Your task to perform on an android device: turn on bluetooth scan Image 0: 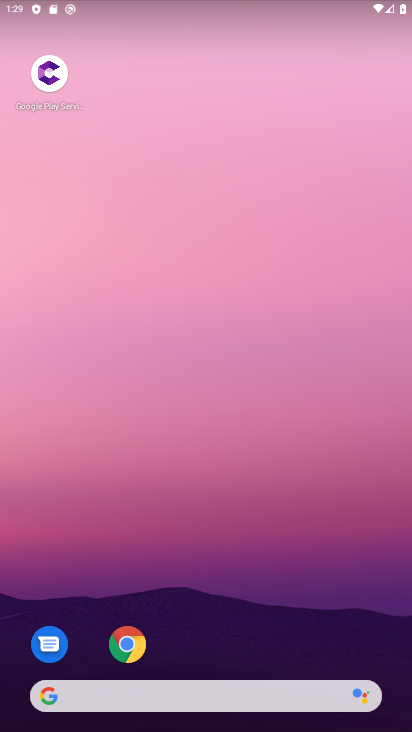
Step 0: drag from (237, 643) to (268, 253)
Your task to perform on an android device: turn on bluetooth scan Image 1: 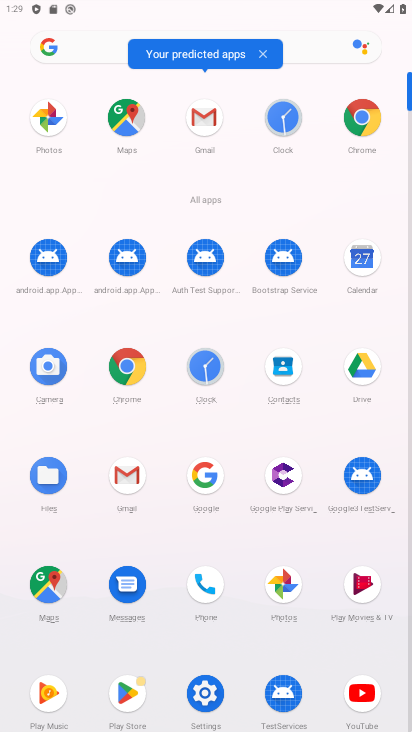
Step 1: drag from (208, 686) to (55, 261)
Your task to perform on an android device: turn on bluetooth scan Image 2: 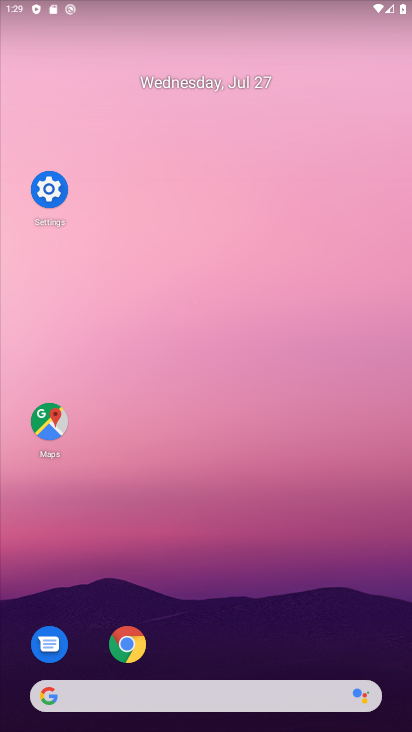
Step 2: click (44, 190)
Your task to perform on an android device: turn on bluetooth scan Image 3: 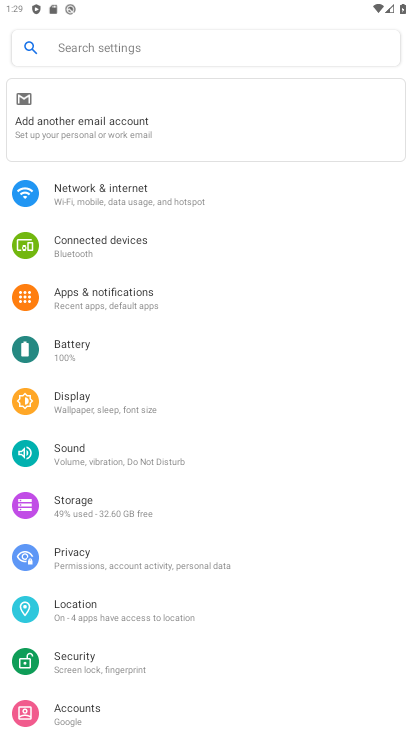
Step 3: click (152, 605)
Your task to perform on an android device: turn on bluetooth scan Image 4: 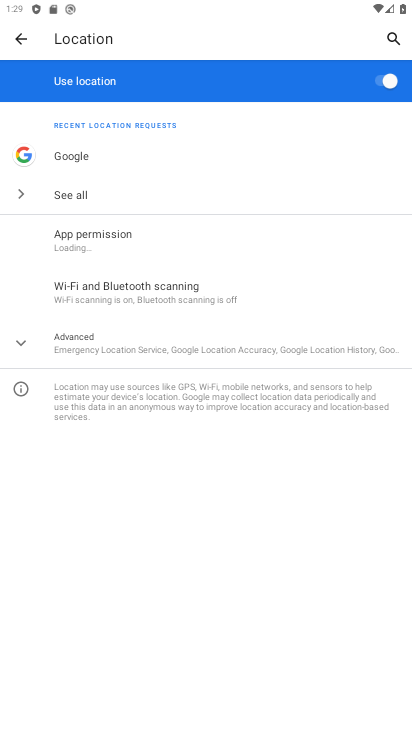
Step 4: click (249, 299)
Your task to perform on an android device: turn on bluetooth scan Image 5: 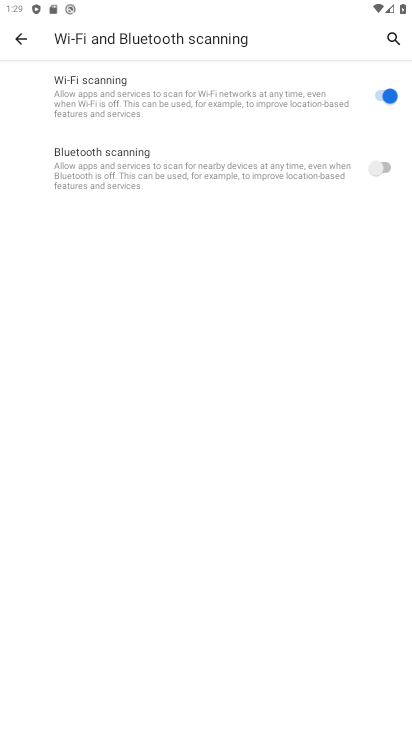
Step 5: click (374, 165)
Your task to perform on an android device: turn on bluetooth scan Image 6: 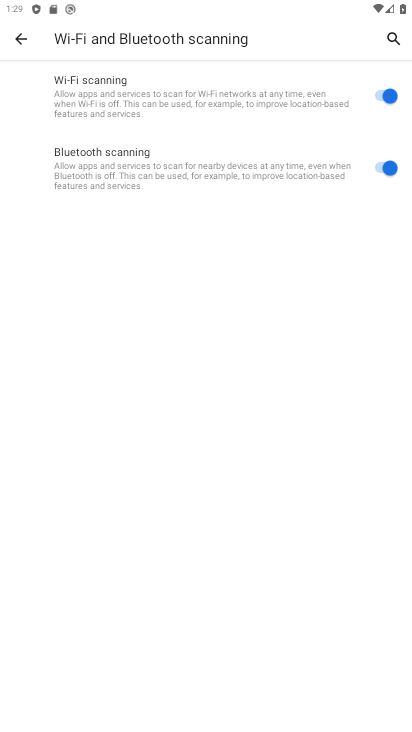
Step 6: task complete